Your task to perform on an android device: Open location settings Image 0: 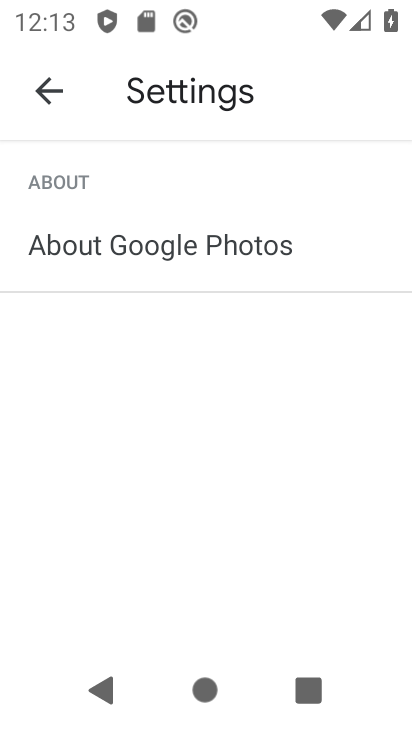
Step 0: press home button
Your task to perform on an android device: Open location settings Image 1: 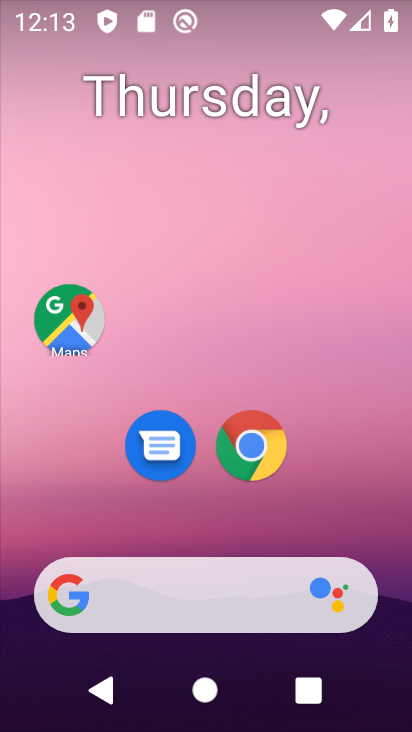
Step 1: click (280, 446)
Your task to perform on an android device: Open location settings Image 2: 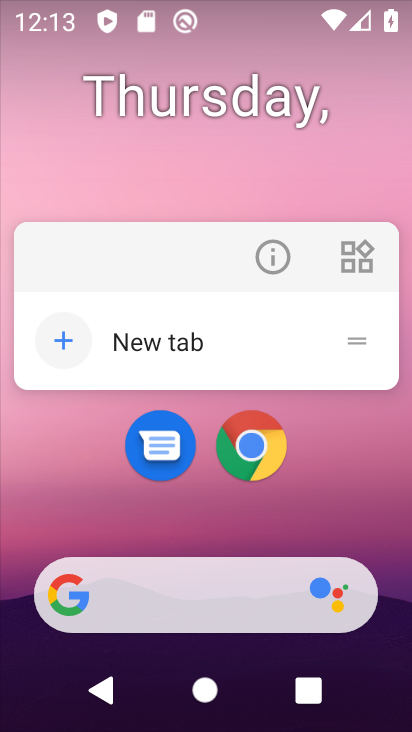
Step 2: click (282, 459)
Your task to perform on an android device: Open location settings Image 3: 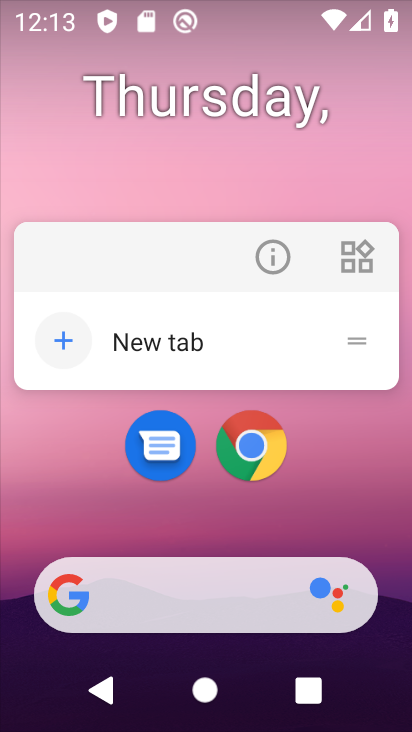
Step 3: click (268, 467)
Your task to perform on an android device: Open location settings Image 4: 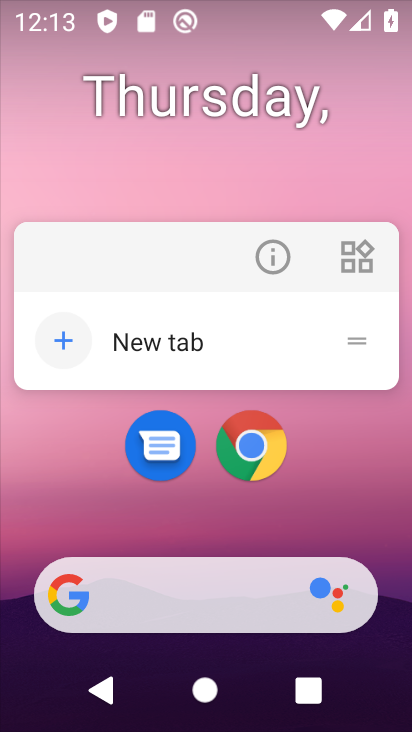
Step 4: drag from (353, 529) to (331, 10)
Your task to perform on an android device: Open location settings Image 5: 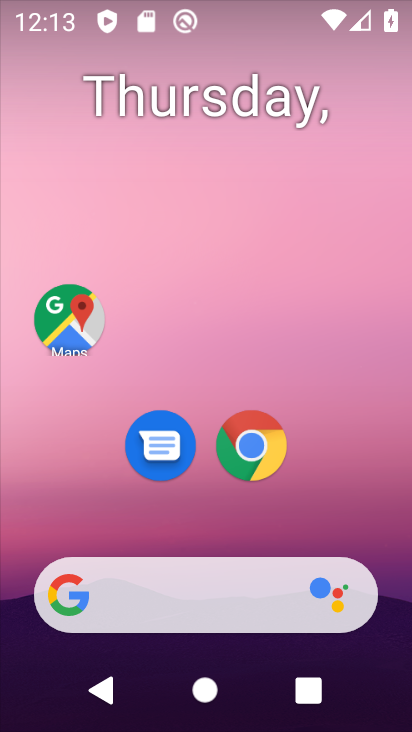
Step 5: drag from (362, 506) to (291, 121)
Your task to perform on an android device: Open location settings Image 6: 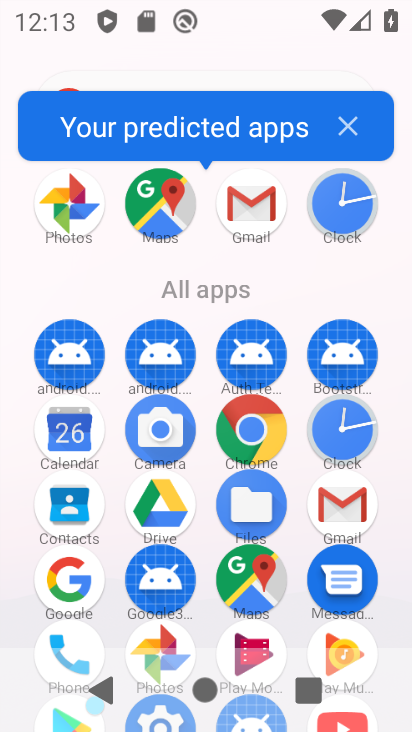
Step 6: drag from (247, 591) to (239, 313)
Your task to perform on an android device: Open location settings Image 7: 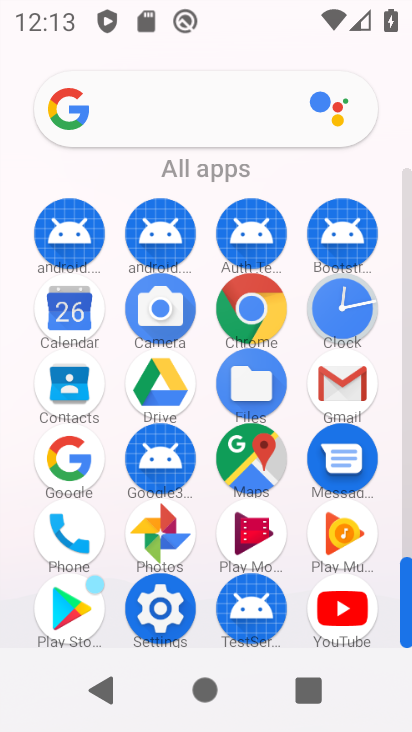
Step 7: click (174, 603)
Your task to perform on an android device: Open location settings Image 8: 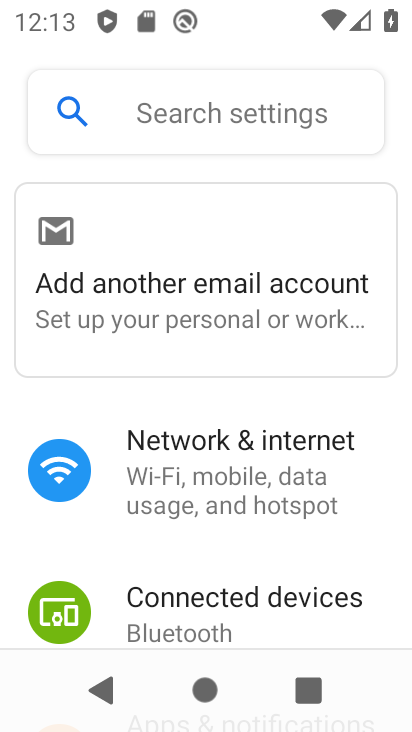
Step 8: drag from (236, 641) to (237, 336)
Your task to perform on an android device: Open location settings Image 9: 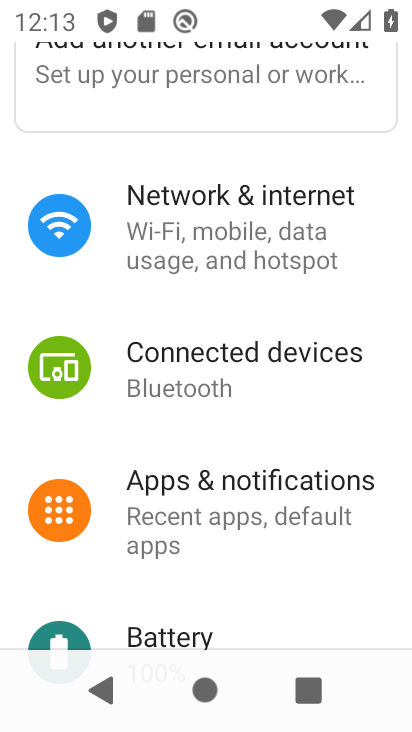
Step 9: drag from (268, 627) to (284, 339)
Your task to perform on an android device: Open location settings Image 10: 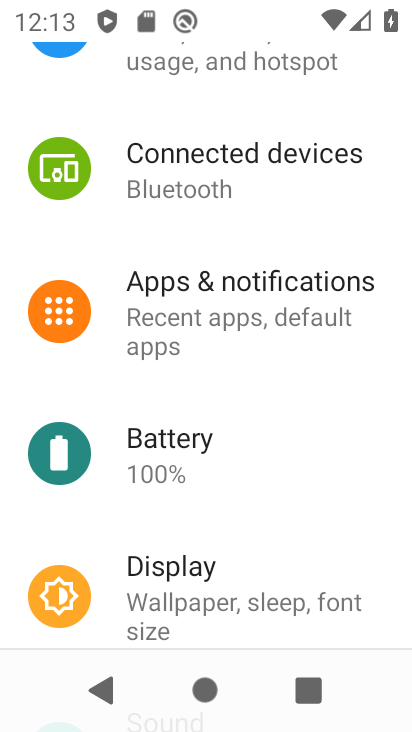
Step 10: drag from (284, 451) to (283, 308)
Your task to perform on an android device: Open location settings Image 11: 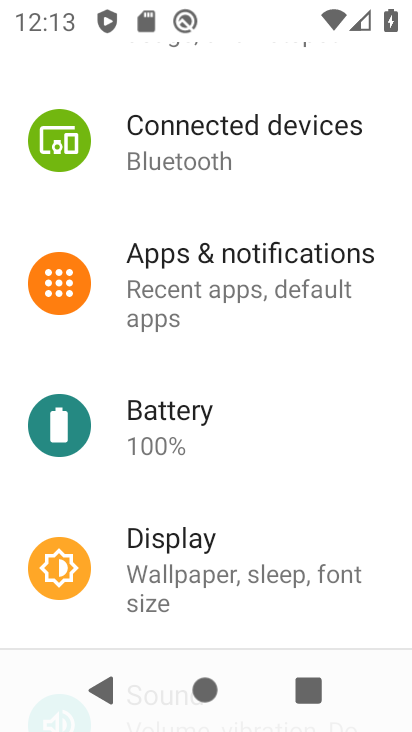
Step 11: drag from (253, 567) to (259, 294)
Your task to perform on an android device: Open location settings Image 12: 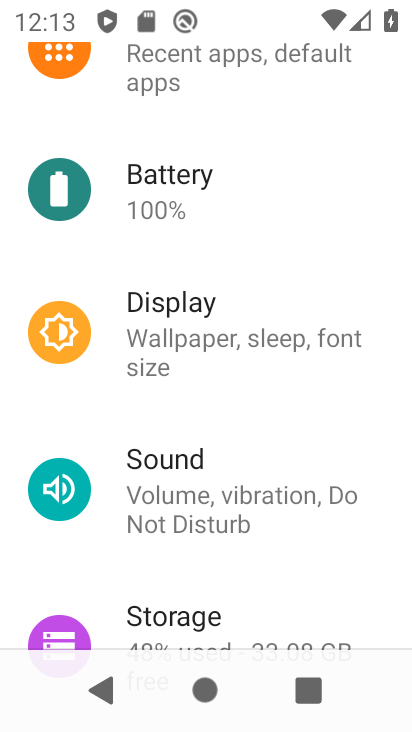
Step 12: drag from (237, 563) to (254, 237)
Your task to perform on an android device: Open location settings Image 13: 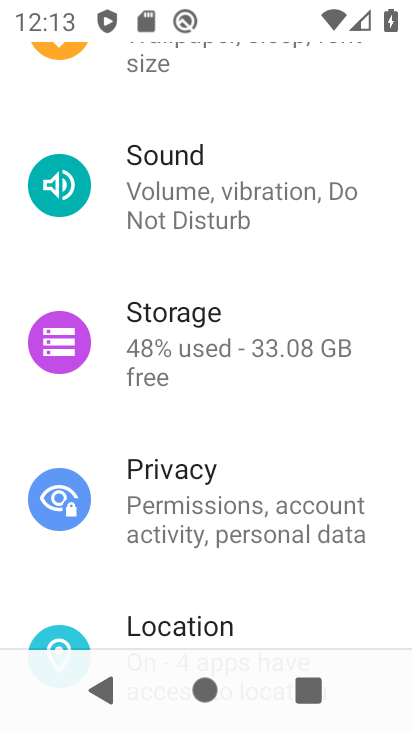
Step 13: drag from (223, 566) to (236, 260)
Your task to perform on an android device: Open location settings Image 14: 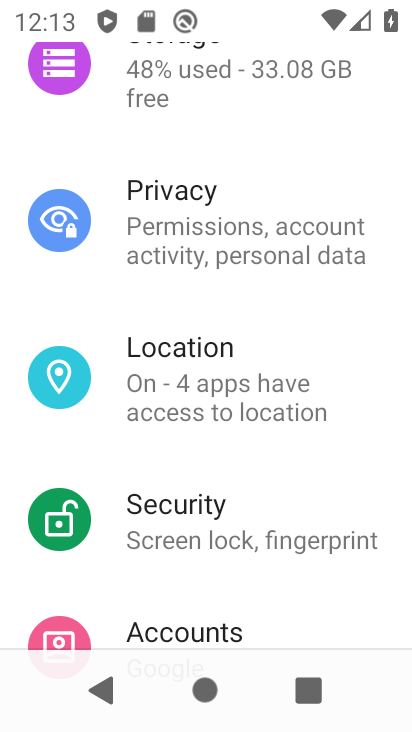
Step 14: click (217, 370)
Your task to perform on an android device: Open location settings Image 15: 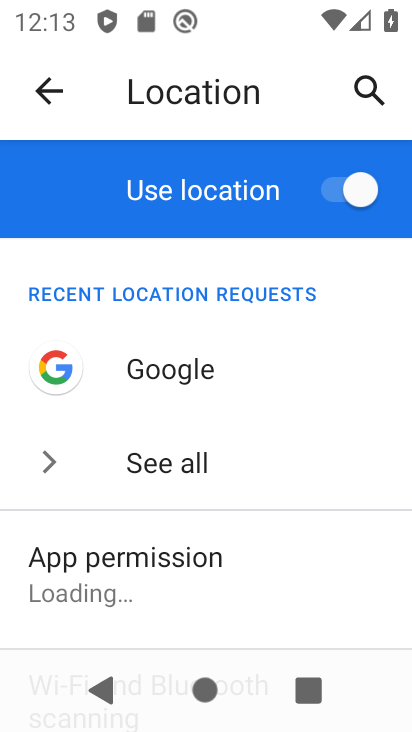
Step 15: drag from (263, 577) to (238, 270)
Your task to perform on an android device: Open location settings Image 16: 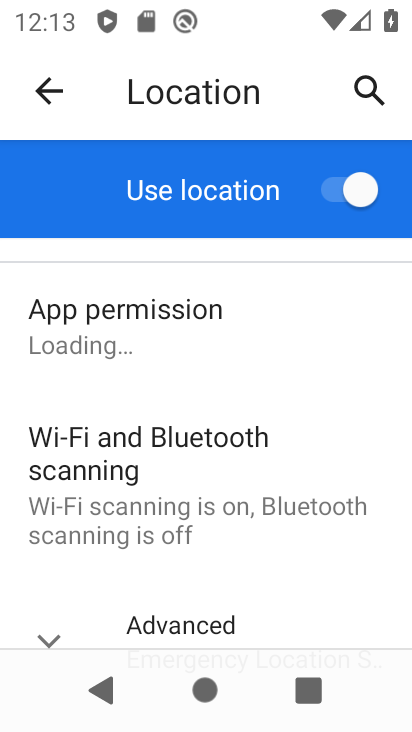
Step 16: drag from (291, 579) to (258, 264)
Your task to perform on an android device: Open location settings Image 17: 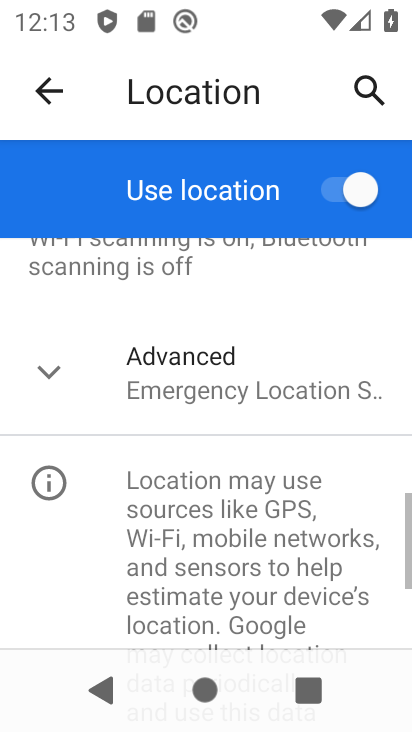
Step 17: click (239, 375)
Your task to perform on an android device: Open location settings Image 18: 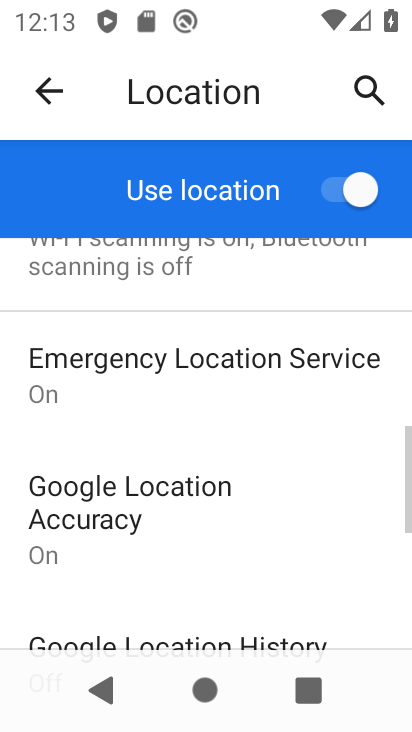
Step 18: task complete